Your task to perform on an android device: turn on wifi Image 0: 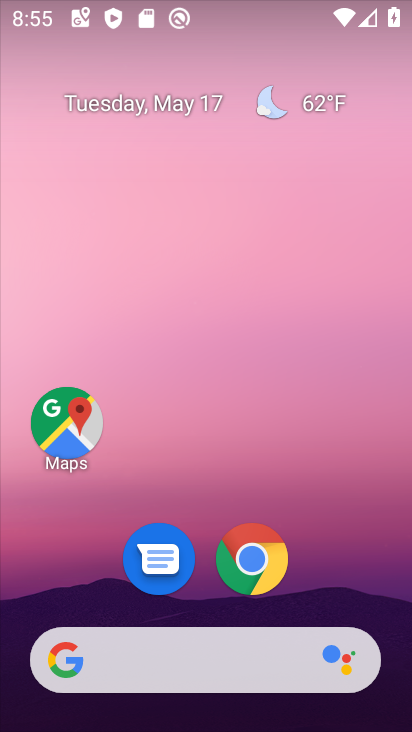
Step 0: drag from (183, 643) to (202, 235)
Your task to perform on an android device: turn on wifi Image 1: 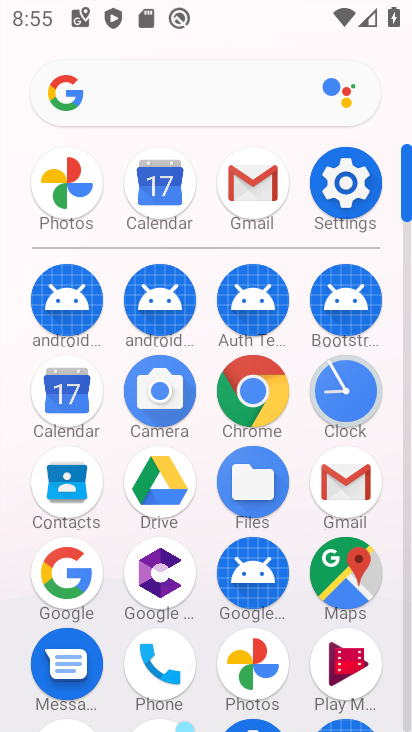
Step 1: click (342, 166)
Your task to perform on an android device: turn on wifi Image 2: 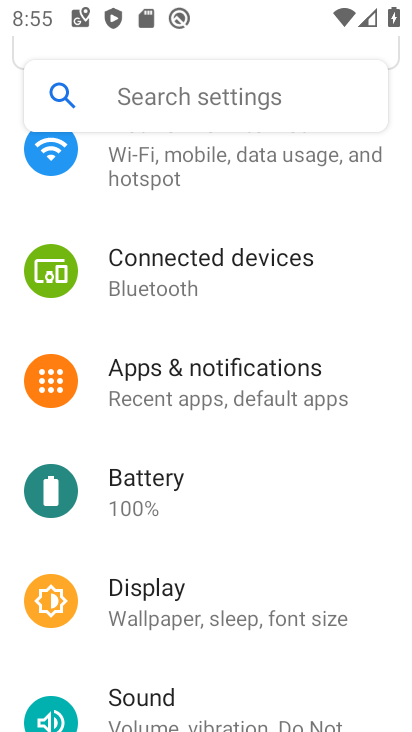
Step 2: click (168, 167)
Your task to perform on an android device: turn on wifi Image 3: 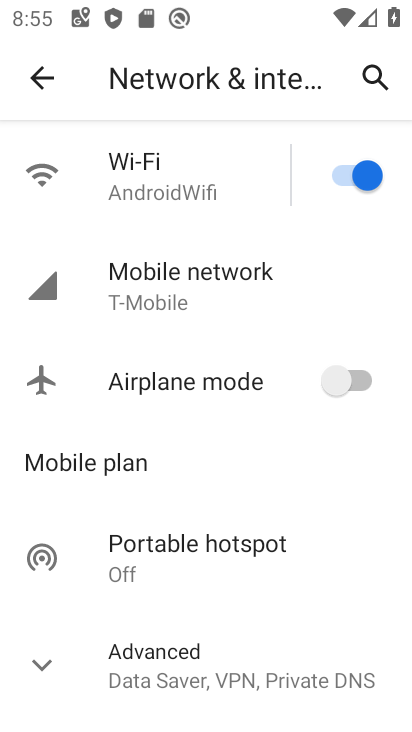
Step 3: task complete